Your task to perform on an android device: Go to Android settings Image 0: 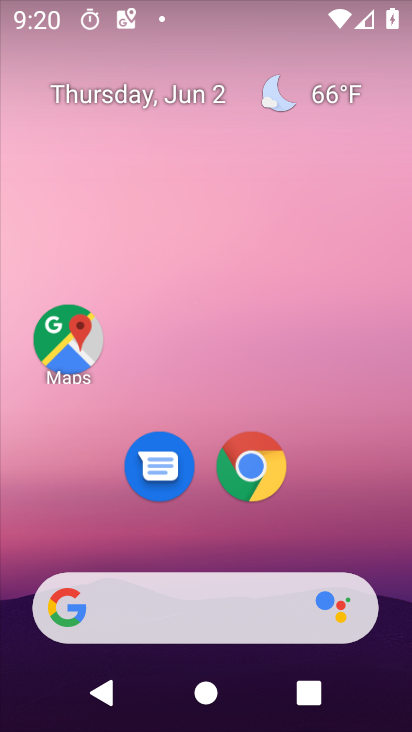
Step 0: drag from (23, 614) to (332, 147)
Your task to perform on an android device: Go to Android settings Image 1: 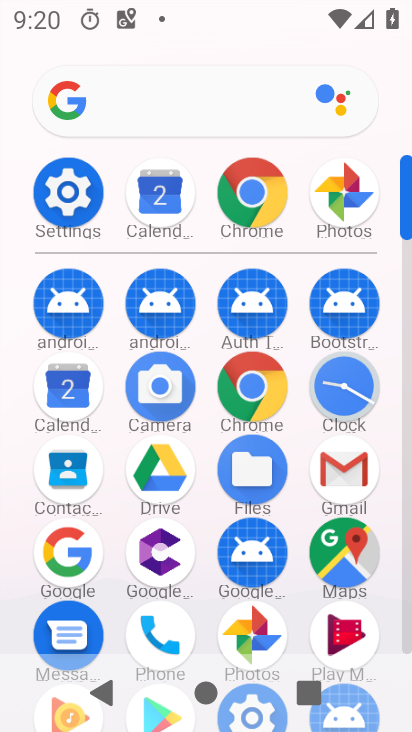
Step 1: click (82, 186)
Your task to perform on an android device: Go to Android settings Image 2: 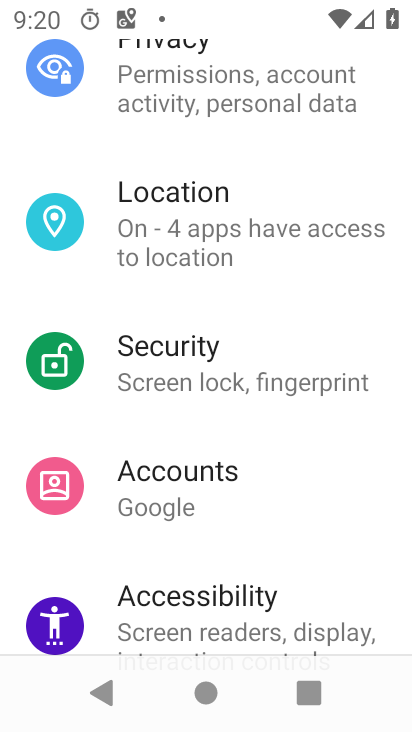
Step 2: drag from (16, 438) to (150, 152)
Your task to perform on an android device: Go to Android settings Image 3: 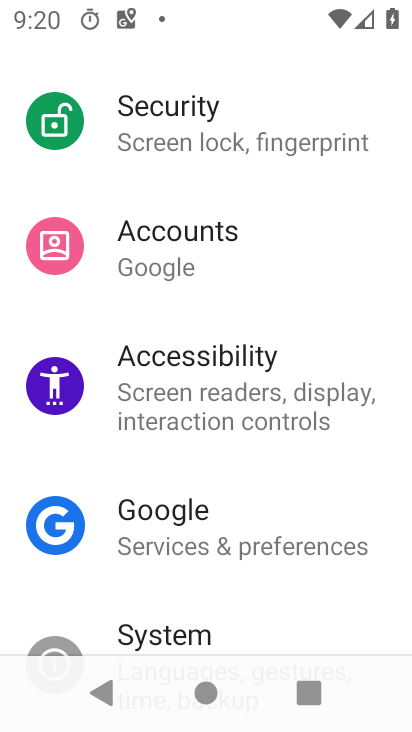
Step 3: drag from (12, 483) to (192, 189)
Your task to perform on an android device: Go to Android settings Image 4: 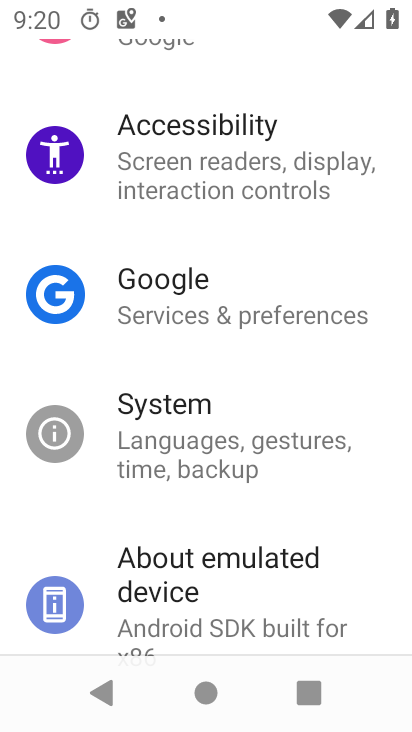
Step 4: drag from (48, 555) to (291, 118)
Your task to perform on an android device: Go to Android settings Image 5: 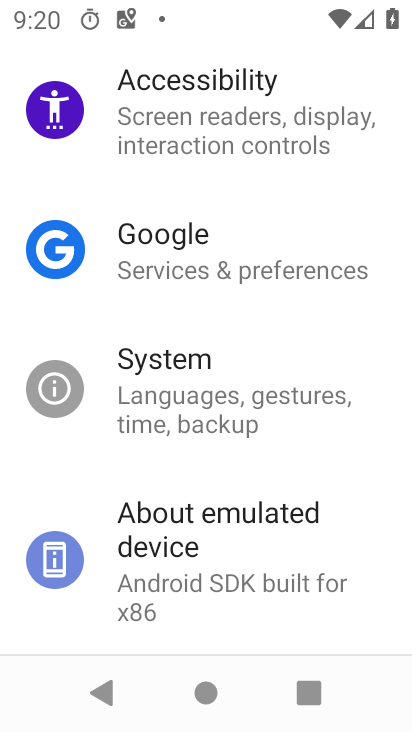
Step 5: click (170, 534)
Your task to perform on an android device: Go to Android settings Image 6: 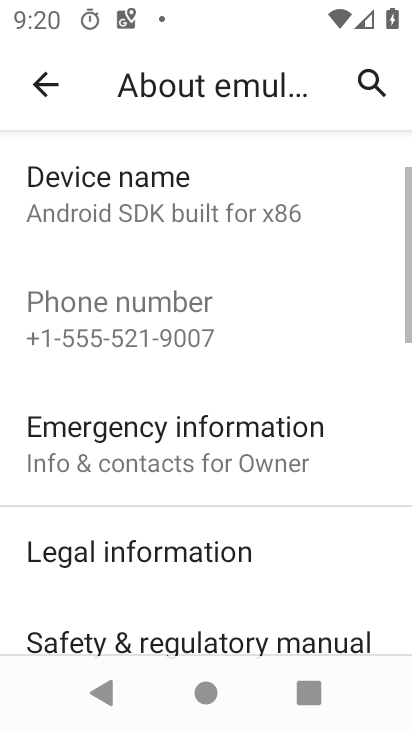
Step 6: drag from (31, 440) to (213, 135)
Your task to perform on an android device: Go to Android settings Image 7: 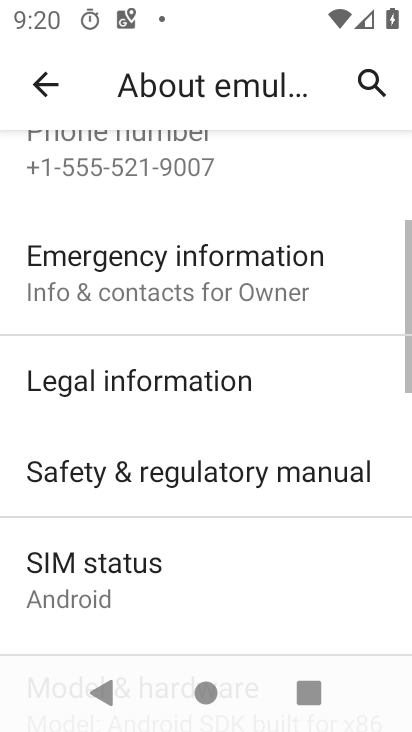
Step 7: drag from (21, 486) to (305, 149)
Your task to perform on an android device: Go to Android settings Image 8: 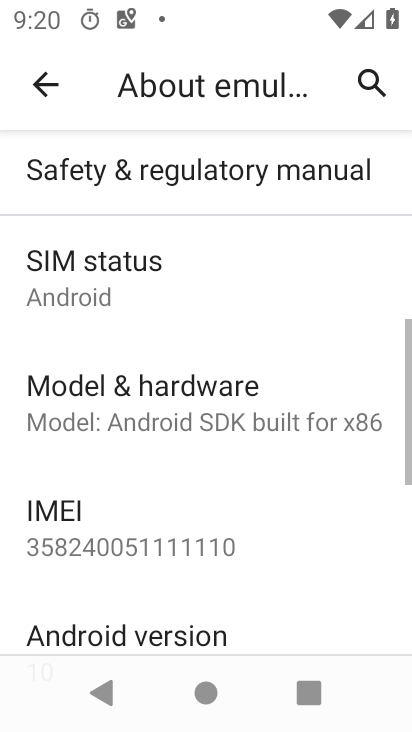
Step 8: drag from (27, 536) to (281, 101)
Your task to perform on an android device: Go to Android settings Image 9: 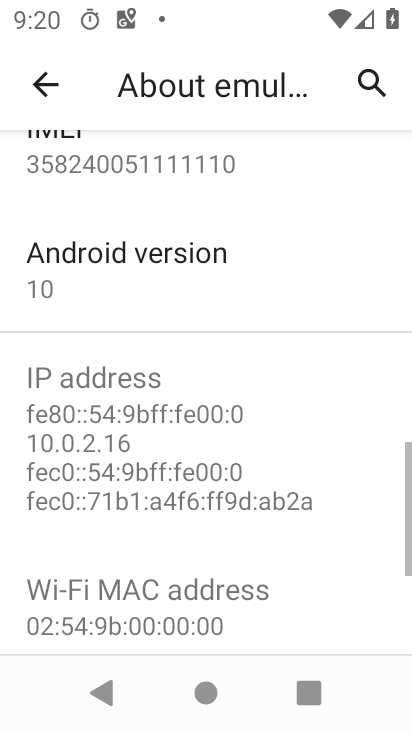
Step 9: click (74, 269)
Your task to perform on an android device: Go to Android settings Image 10: 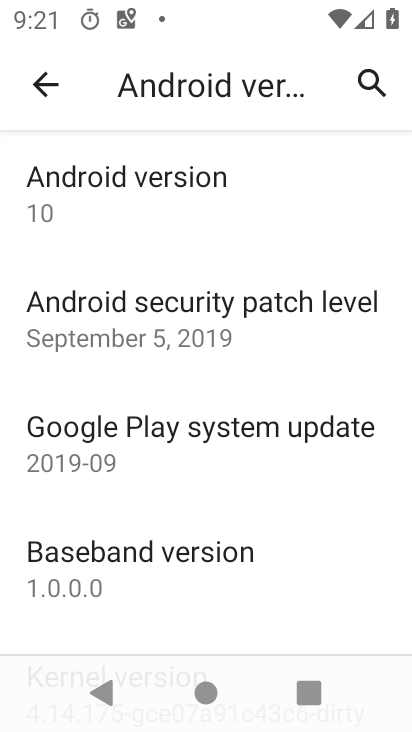
Step 10: task complete